Your task to perform on an android device: check storage Image 0: 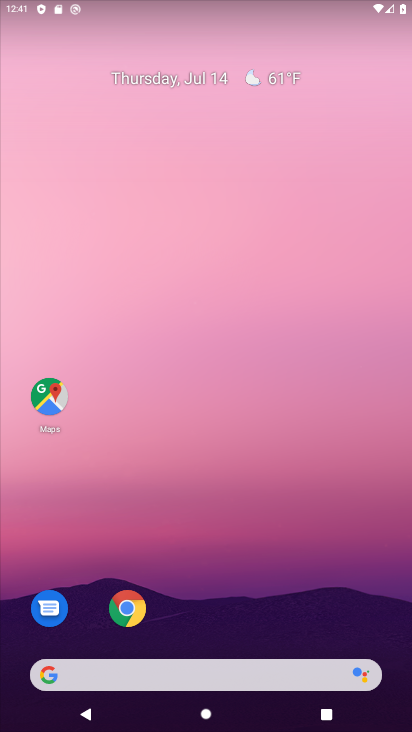
Step 0: drag from (365, 613) to (381, 231)
Your task to perform on an android device: check storage Image 1: 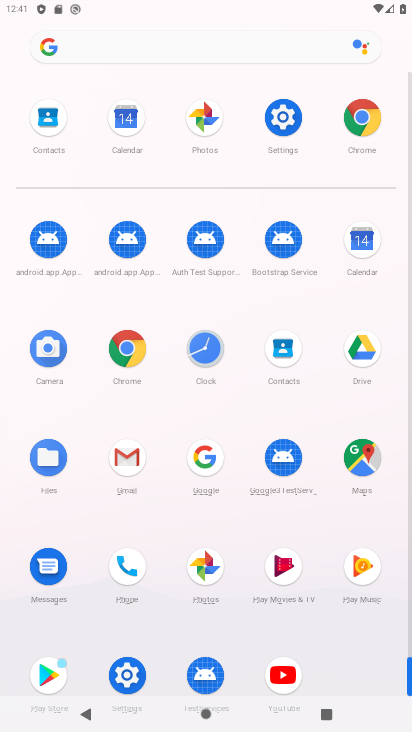
Step 1: click (286, 126)
Your task to perform on an android device: check storage Image 2: 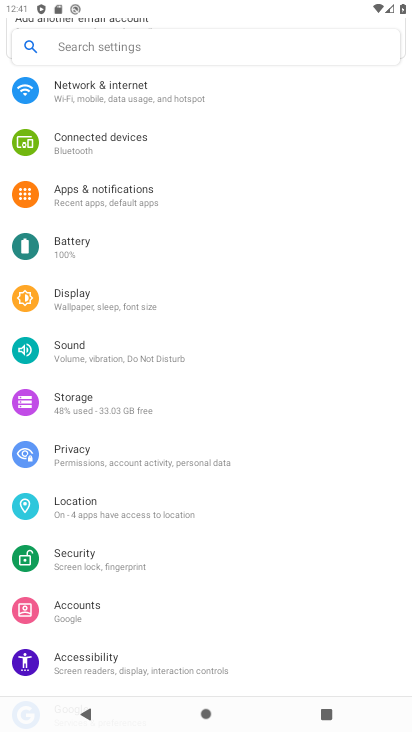
Step 2: drag from (328, 537) to (335, 419)
Your task to perform on an android device: check storage Image 3: 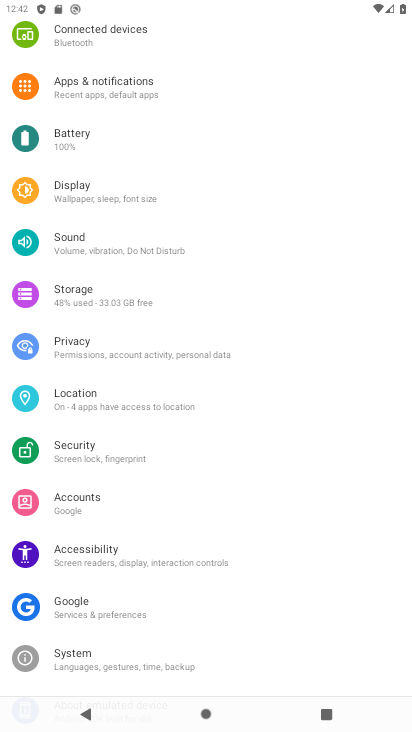
Step 3: drag from (329, 539) to (330, 383)
Your task to perform on an android device: check storage Image 4: 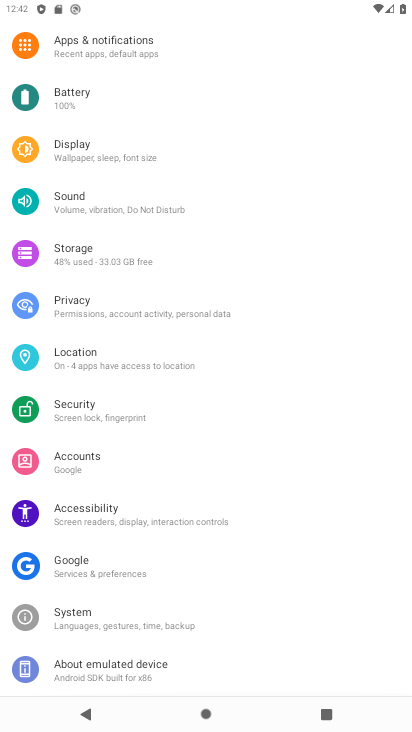
Step 4: drag from (330, 301) to (333, 377)
Your task to perform on an android device: check storage Image 5: 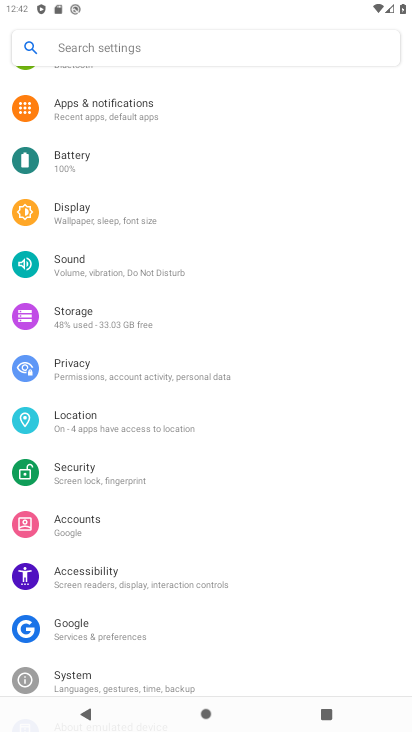
Step 5: drag from (324, 284) to (330, 372)
Your task to perform on an android device: check storage Image 6: 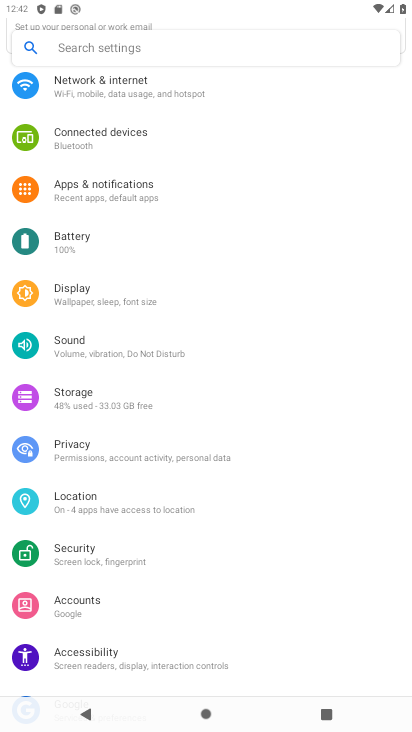
Step 6: drag from (317, 284) to (332, 446)
Your task to perform on an android device: check storage Image 7: 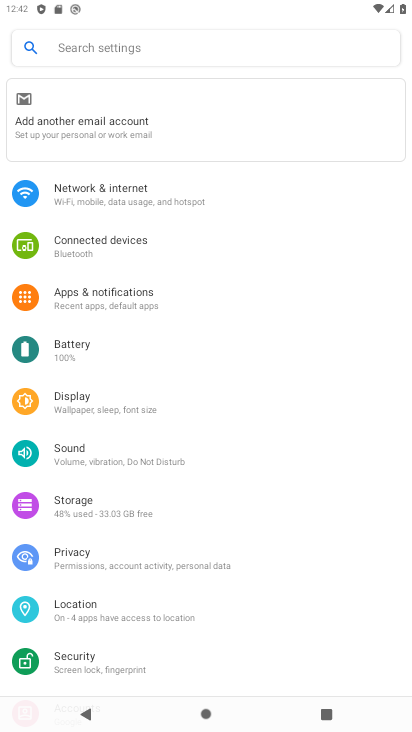
Step 7: drag from (307, 284) to (308, 430)
Your task to perform on an android device: check storage Image 8: 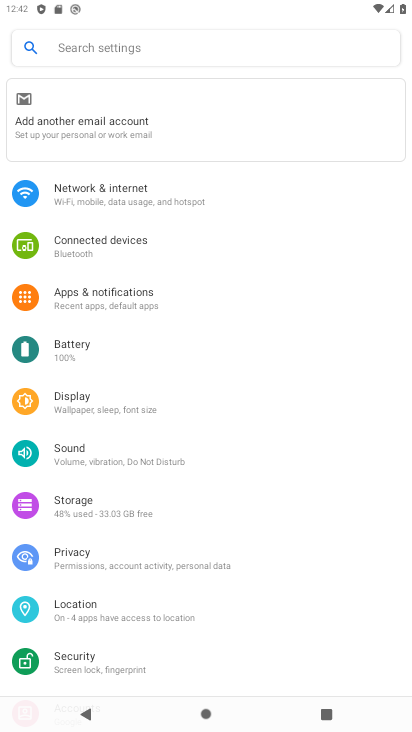
Step 8: click (180, 515)
Your task to perform on an android device: check storage Image 9: 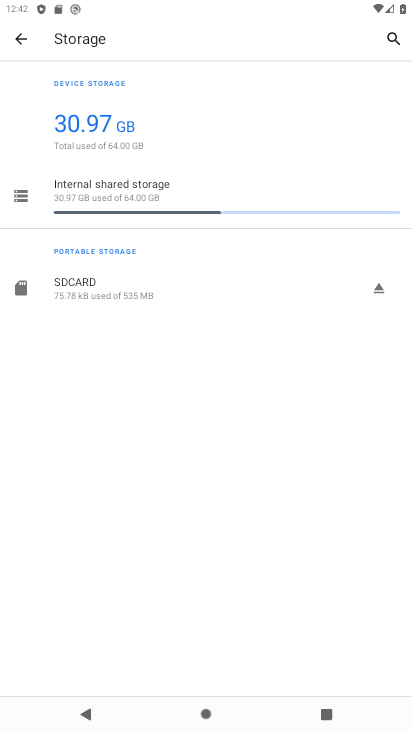
Step 9: task complete